Your task to perform on an android device: Open CNN.com Image 0: 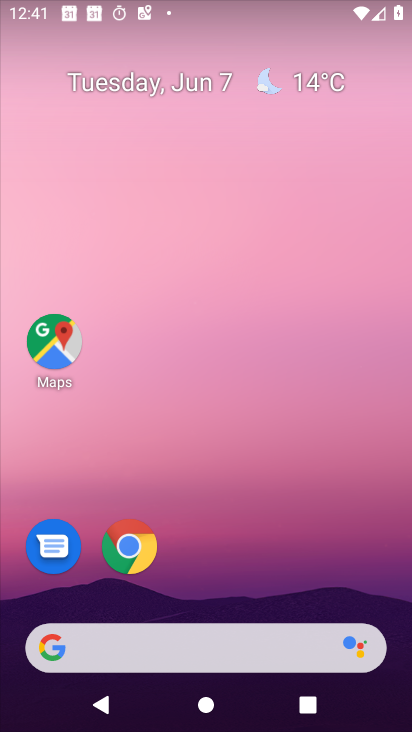
Step 0: drag from (213, 577) to (348, 125)
Your task to perform on an android device: Open CNN.com Image 1: 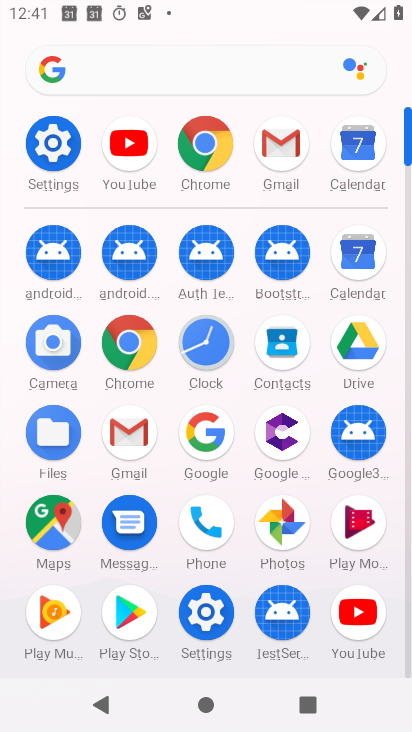
Step 1: click (201, 168)
Your task to perform on an android device: Open CNN.com Image 2: 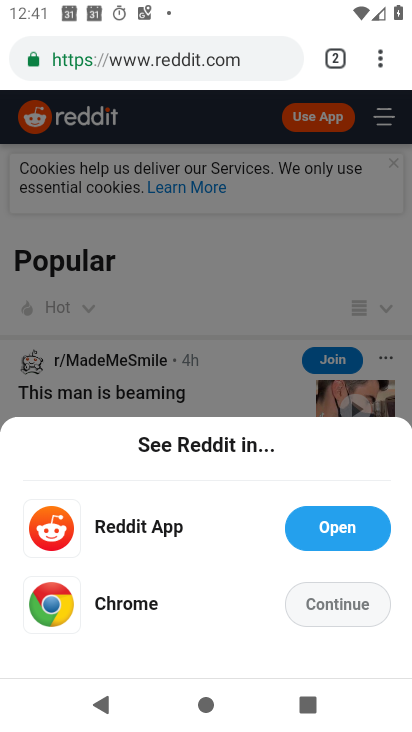
Step 2: click (186, 57)
Your task to perform on an android device: Open CNN.com Image 3: 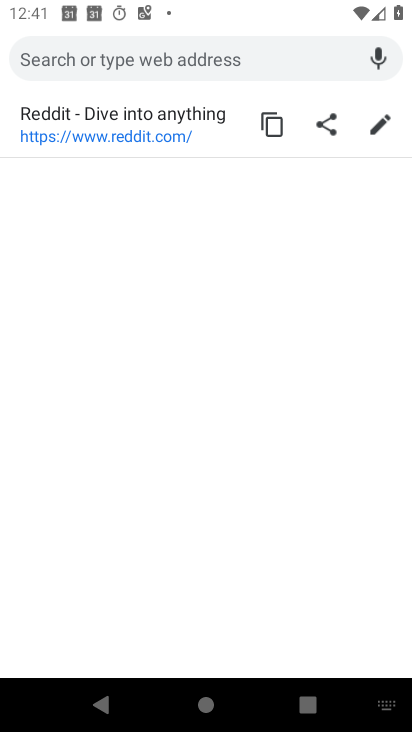
Step 3: type "cnn.com"
Your task to perform on an android device: Open CNN.com Image 4: 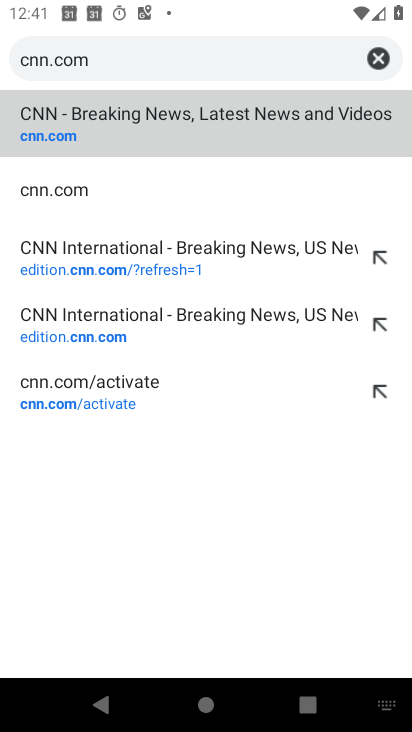
Step 4: click (123, 127)
Your task to perform on an android device: Open CNN.com Image 5: 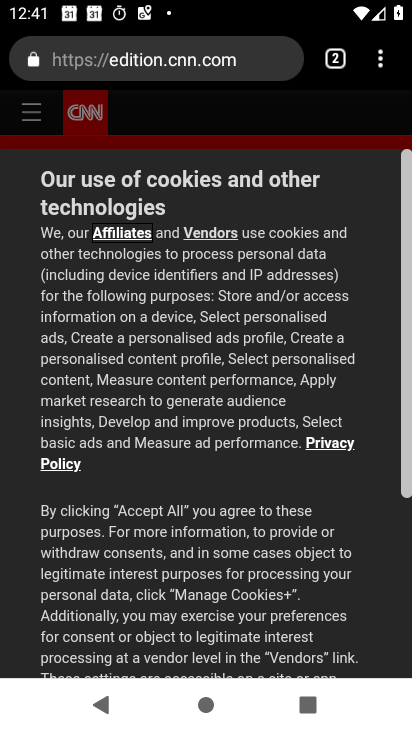
Step 5: task complete